Your task to perform on an android device: Open calendar and show me the third week of next month Image 0: 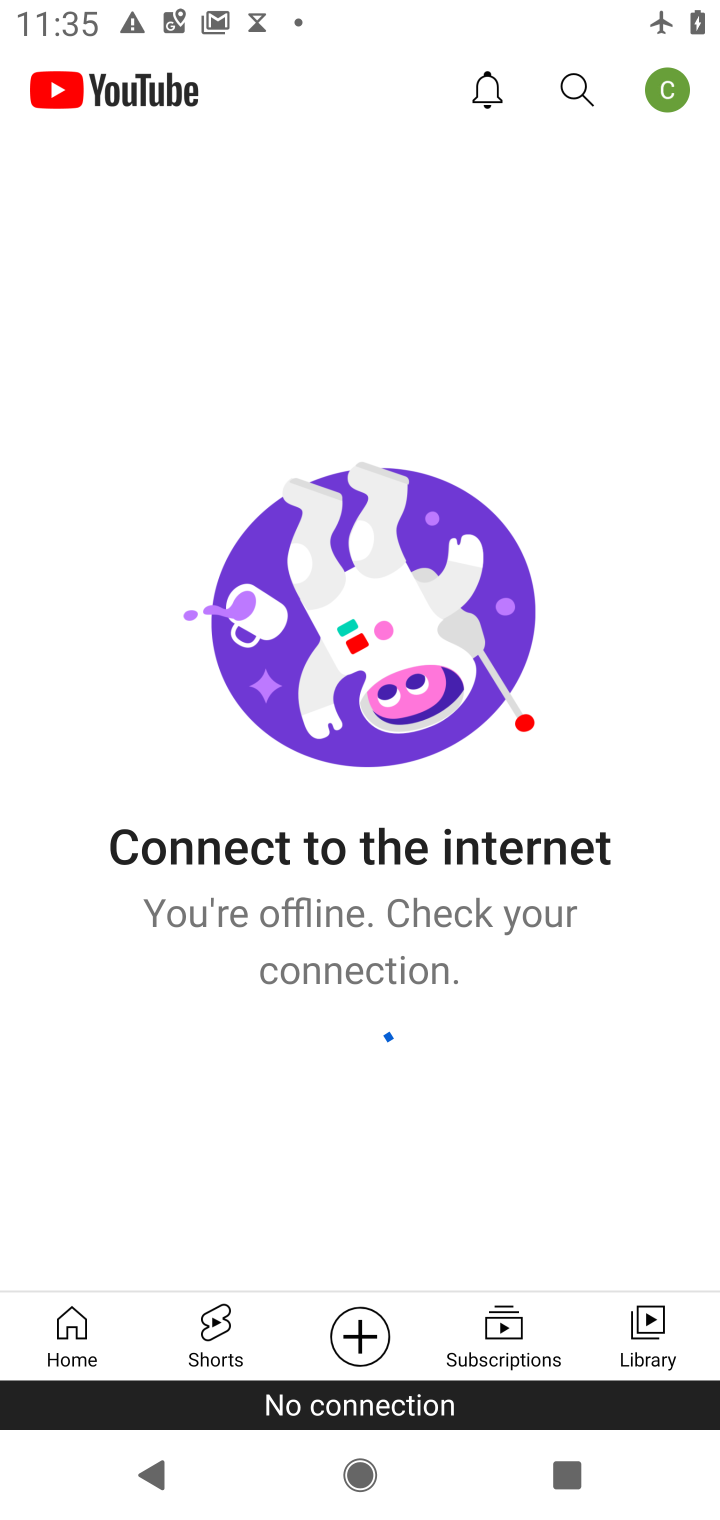
Step 0: press home button
Your task to perform on an android device: Open calendar and show me the third week of next month Image 1: 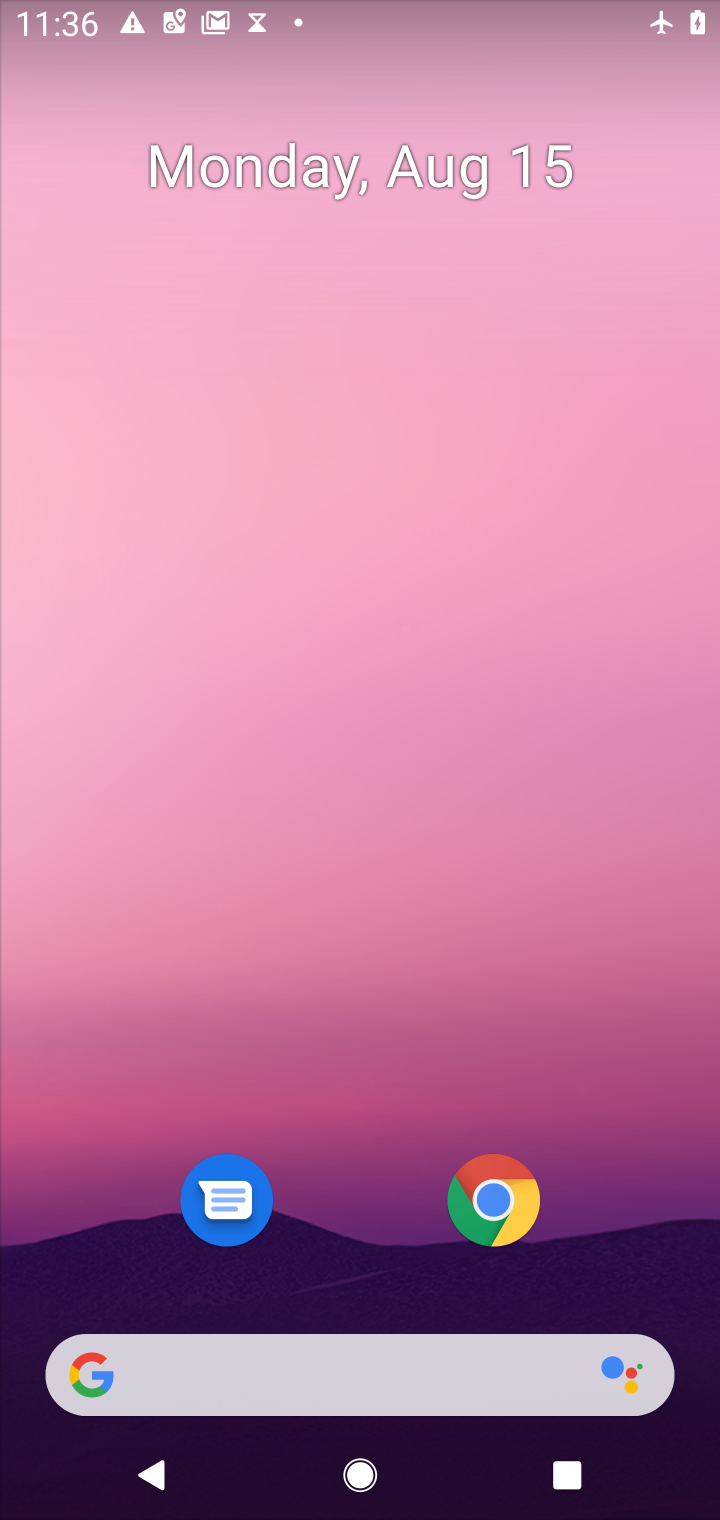
Step 1: drag from (359, 1134) to (379, 294)
Your task to perform on an android device: Open calendar and show me the third week of next month Image 2: 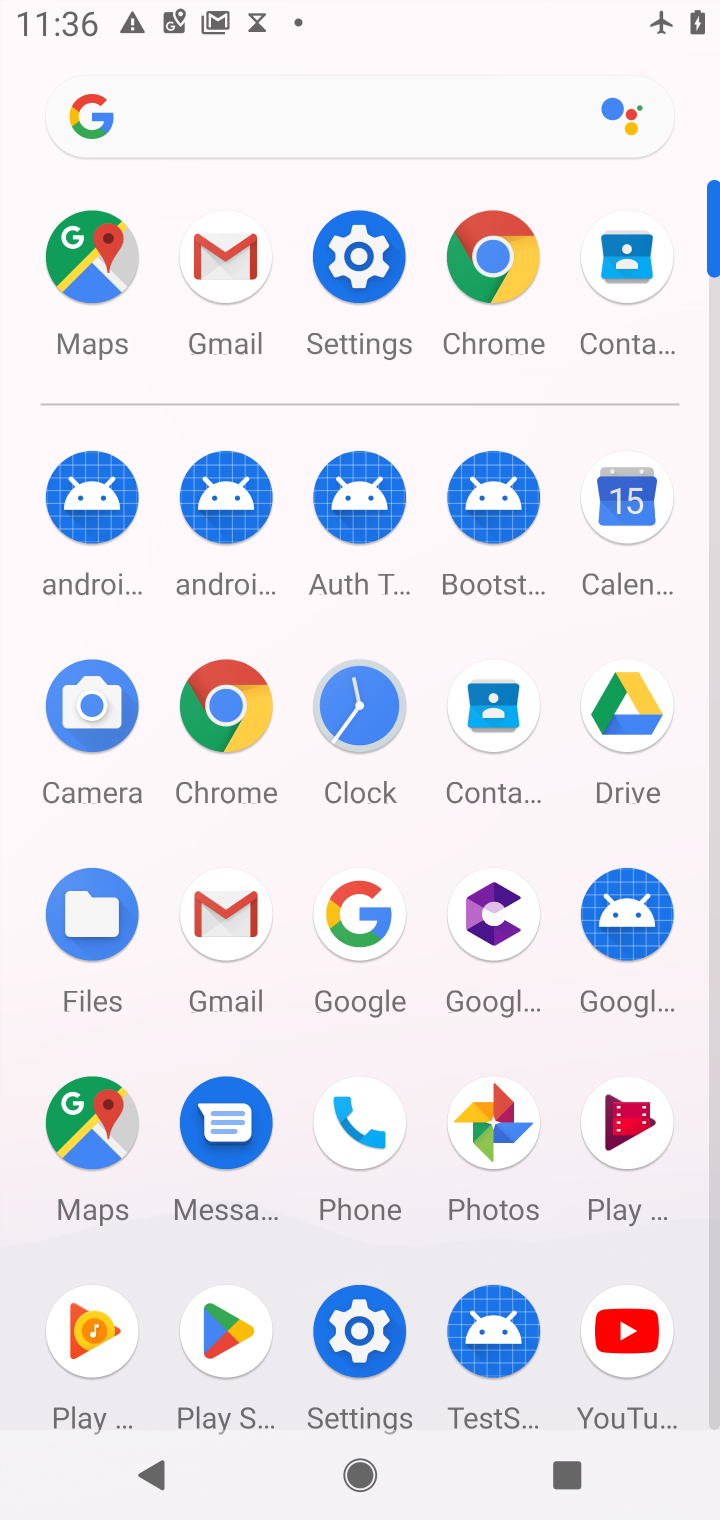
Step 2: click (618, 523)
Your task to perform on an android device: Open calendar and show me the third week of next month Image 3: 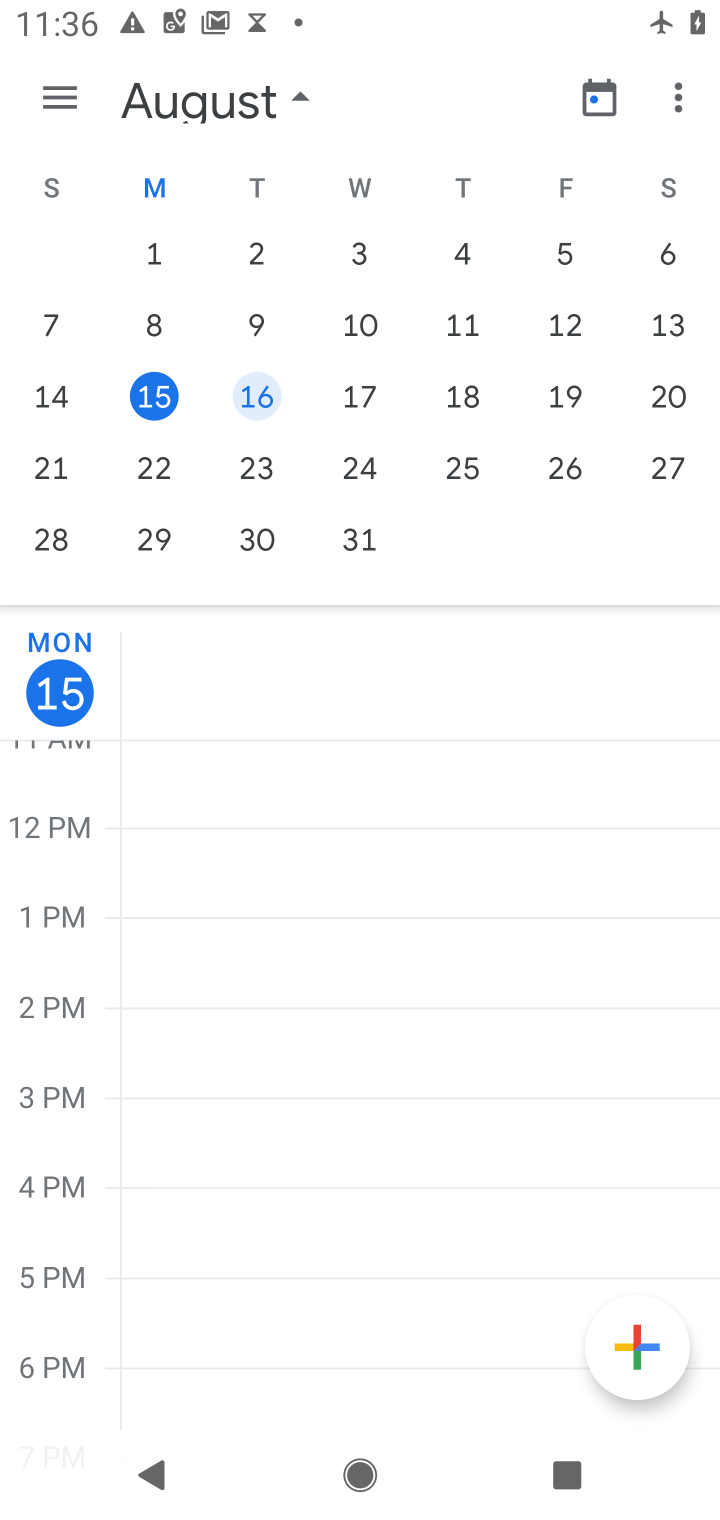
Step 3: drag from (593, 345) to (113, 365)
Your task to perform on an android device: Open calendar and show me the third week of next month Image 4: 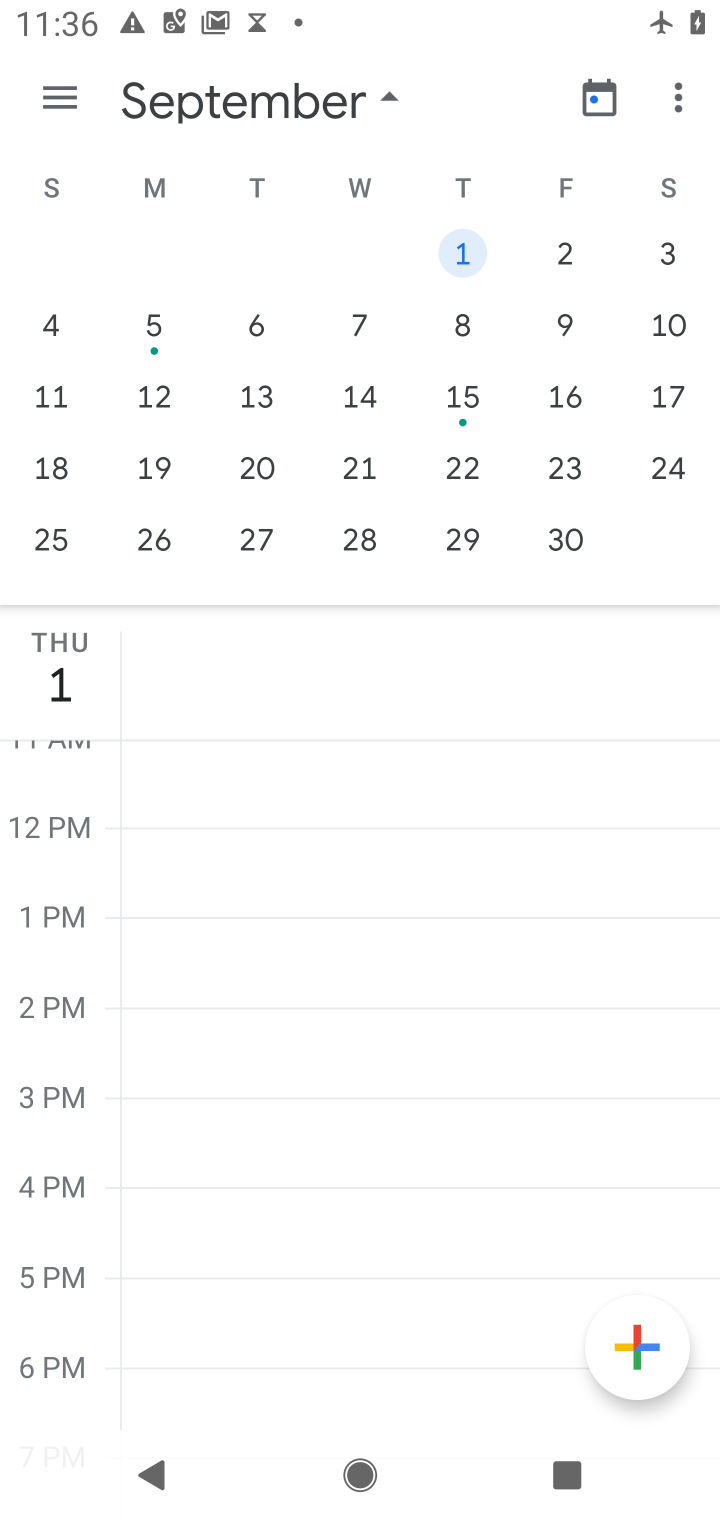
Step 4: click (62, 399)
Your task to perform on an android device: Open calendar and show me the third week of next month Image 5: 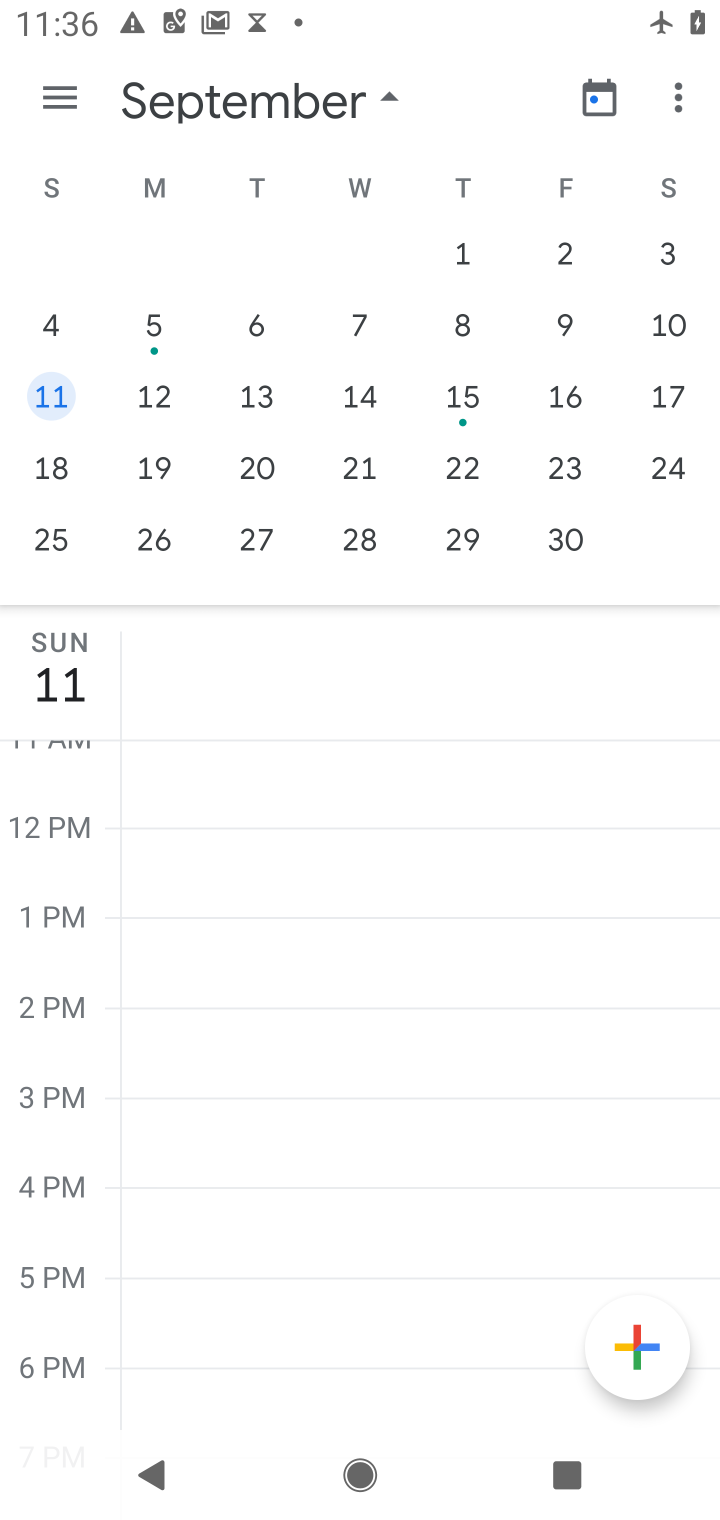
Step 5: task complete